Your task to perform on an android device: Open settings on Google Maps Image 0: 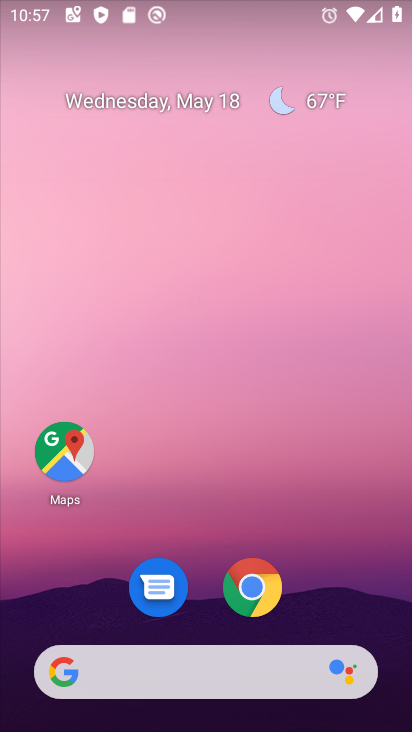
Step 0: click (45, 449)
Your task to perform on an android device: Open settings on Google Maps Image 1: 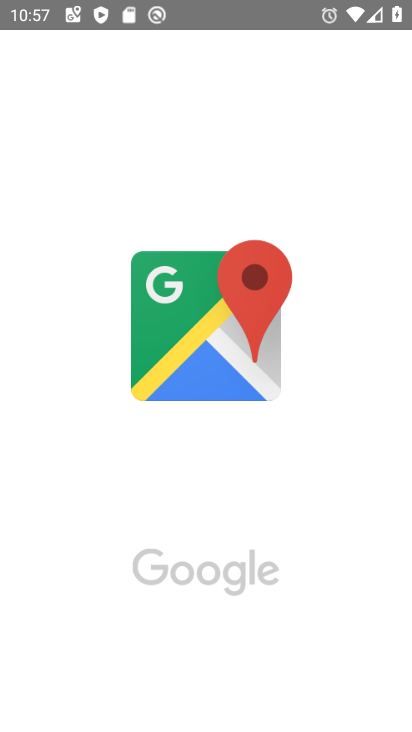
Step 1: click (45, 449)
Your task to perform on an android device: Open settings on Google Maps Image 2: 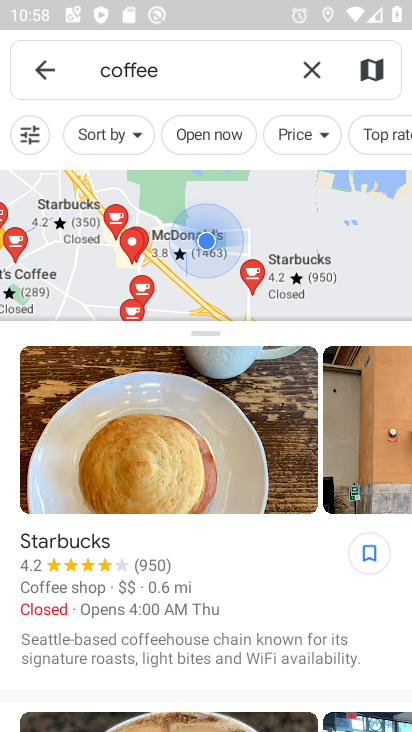
Step 2: press back button
Your task to perform on an android device: Open settings on Google Maps Image 3: 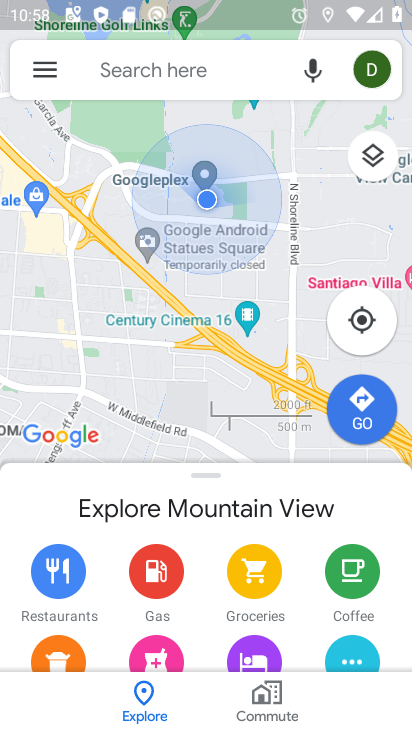
Step 3: click (50, 70)
Your task to perform on an android device: Open settings on Google Maps Image 4: 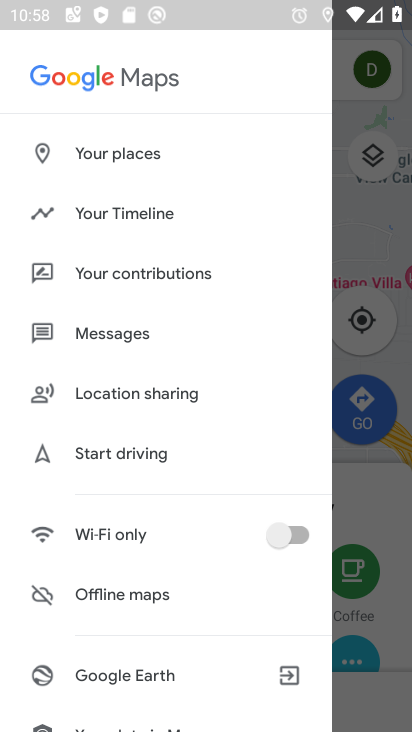
Step 4: drag from (137, 536) to (161, 211)
Your task to perform on an android device: Open settings on Google Maps Image 5: 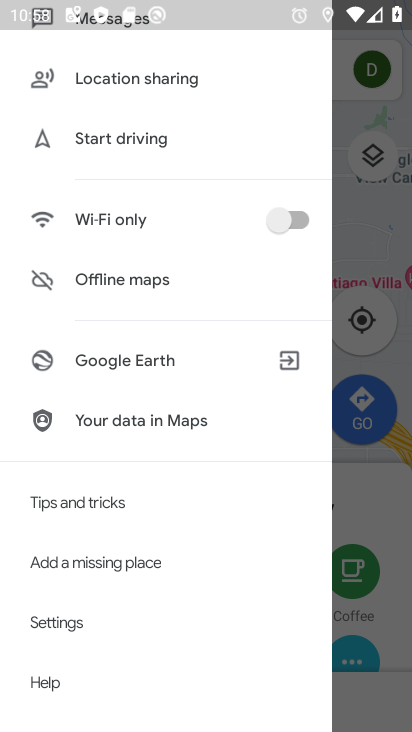
Step 5: drag from (106, 562) to (142, 139)
Your task to perform on an android device: Open settings on Google Maps Image 6: 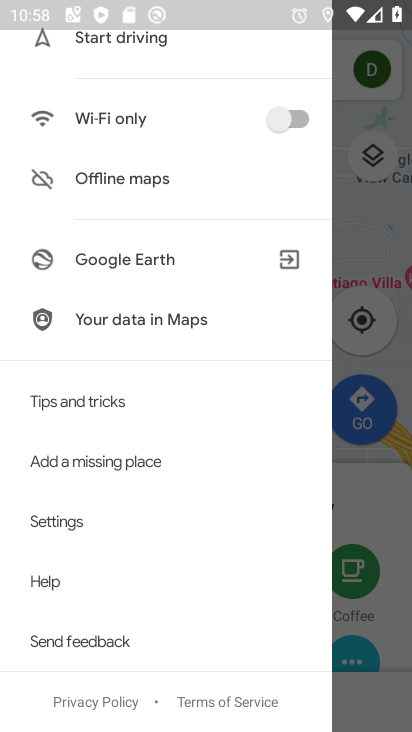
Step 6: drag from (189, 120) to (151, 558)
Your task to perform on an android device: Open settings on Google Maps Image 7: 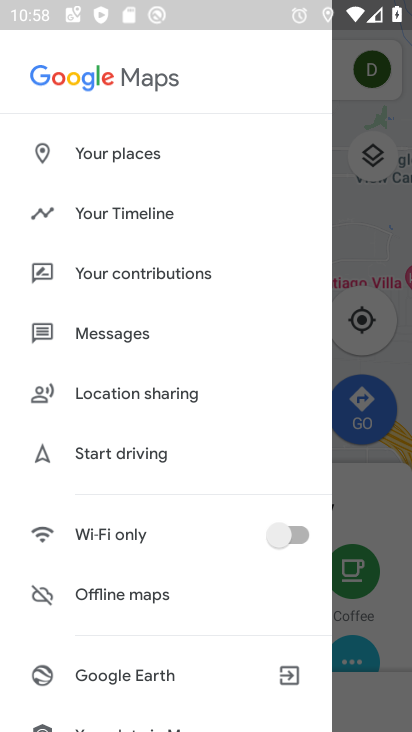
Step 7: drag from (201, 551) to (236, 111)
Your task to perform on an android device: Open settings on Google Maps Image 8: 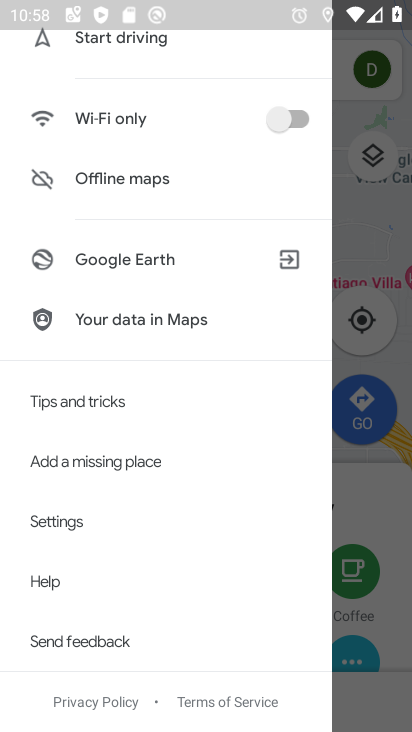
Step 8: click (121, 516)
Your task to perform on an android device: Open settings on Google Maps Image 9: 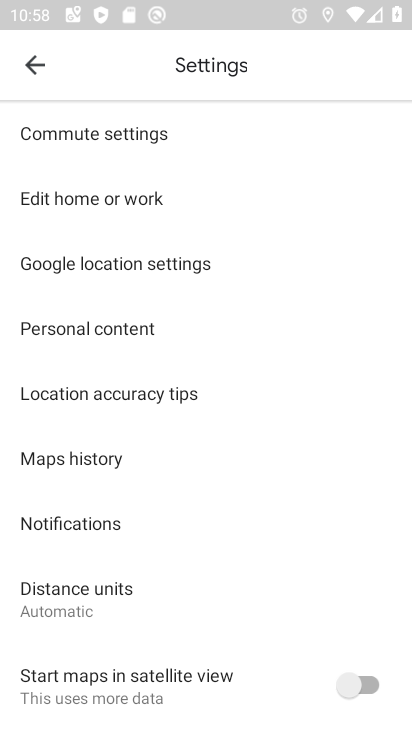
Step 9: task complete